Your task to perform on an android device: set default search engine in the chrome app Image 0: 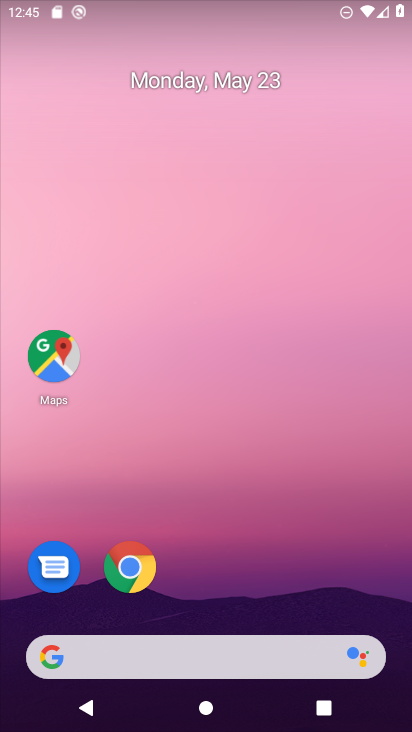
Step 0: click (133, 570)
Your task to perform on an android device: set default search engine in the chrome app Image 1: 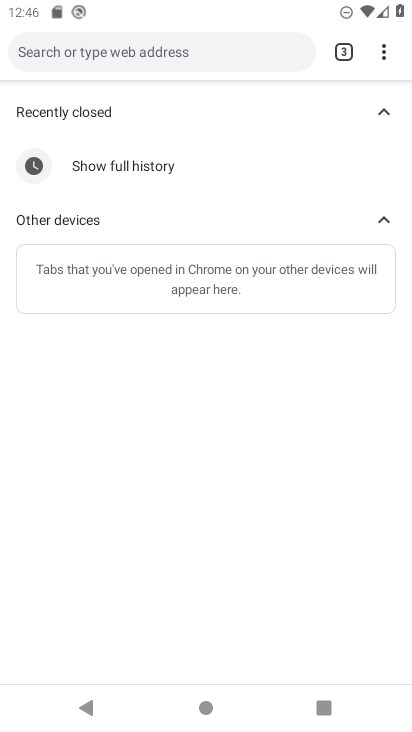
Step 1: click (402, 57)
Your task to perform on an android device: set default search engine in the chrome app Image 2: 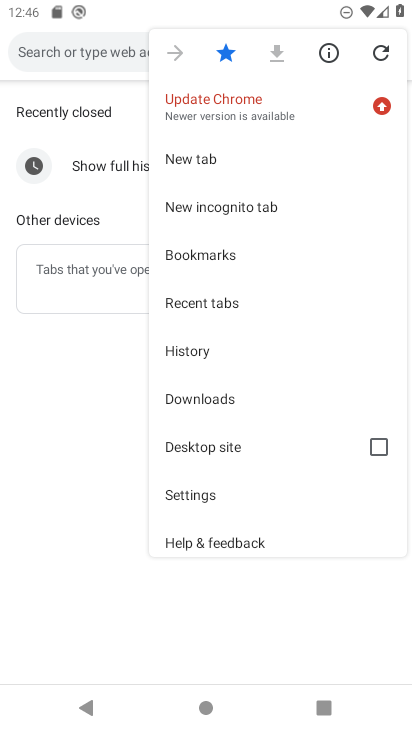
Step 2: click (209, 496)
Your task to perform on an android device: set default search engine in the chrome app Image 3: 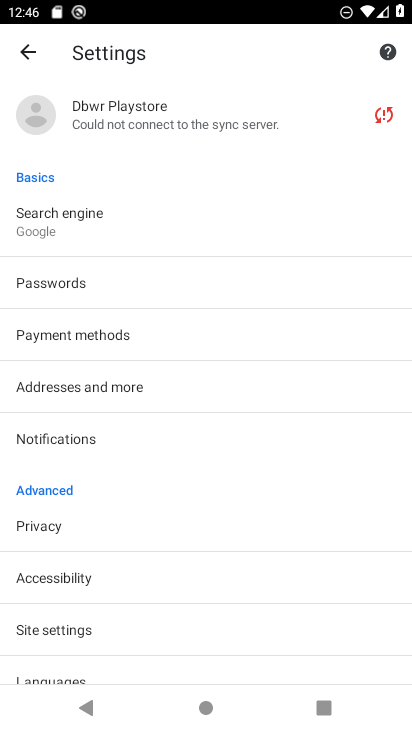
Step 3: click (86, 254)
Your task to perform on an android device: set default search engine in the chrome app Image 4: 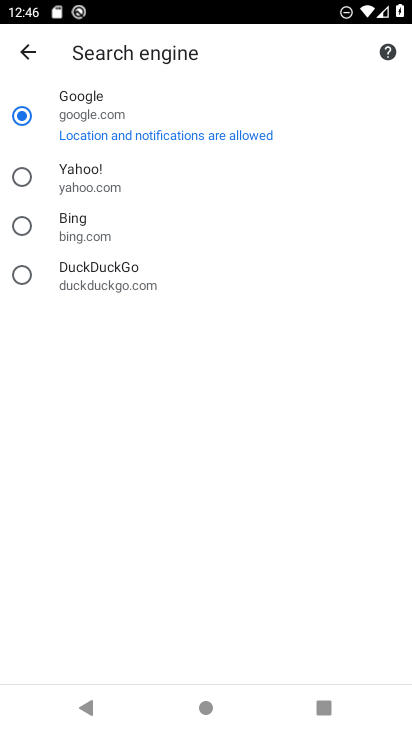
Step 4: click (58, 239)
Your task to perform on an android device: set default search engine in the chrome app Image 5: 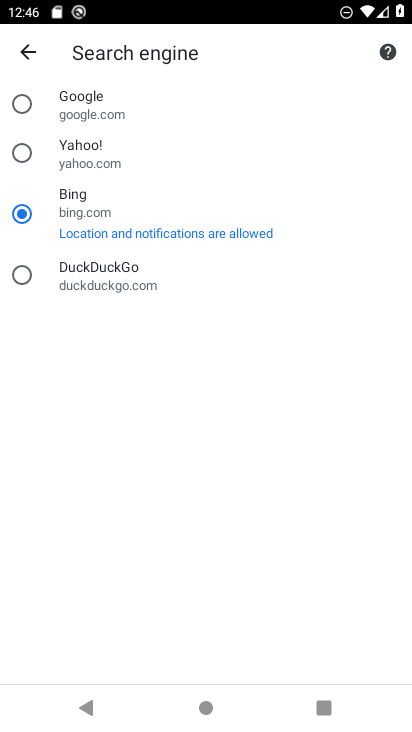
Step 5: task complete